Your task to perform on an android device: Open eBay Image 0: 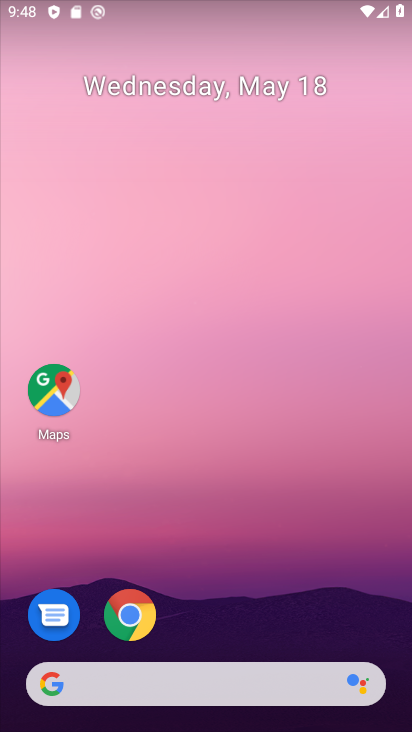
Step 0: click (123, 620)
Your task to perform on an android device: Open eBay Image 1: 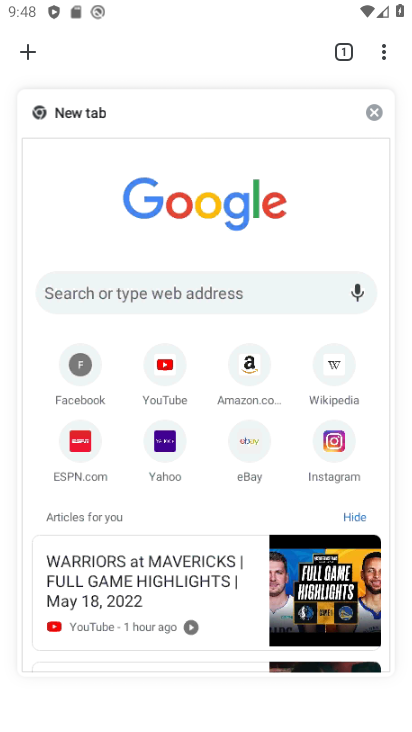
Step 1: click (257, 438)
Your task to perform on an android device: Open eBay Image 2: 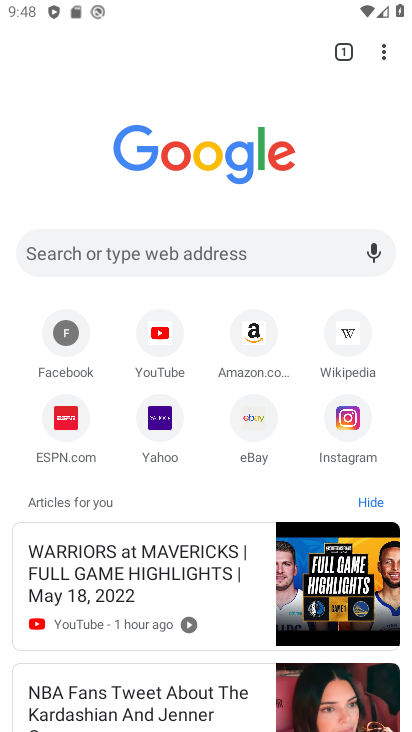
Step 2: click (251, 421)
Your task to perform on an android device: Open eBay Image 3: 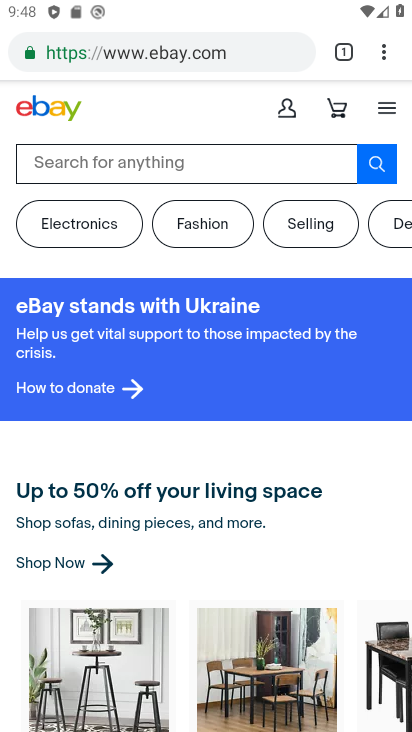
Step 3: task complete